Your task to perform on an android device: see tabs open on other devices in the chrome app Image 0: 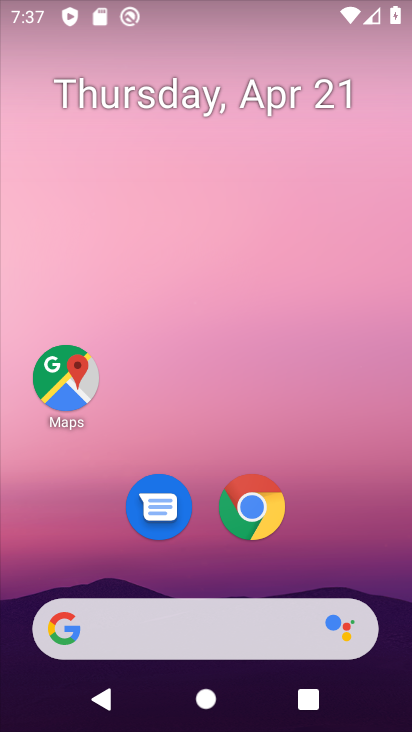
Step 0: click (331, 78)
Your task to perform on an android device: see tabs open on other devices in the chrome app Image 1: 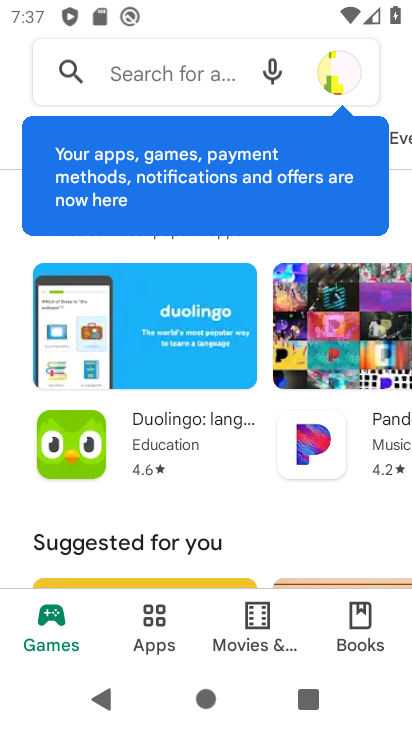
Step 1: press home button
Your task to perform on an android device: see tabs open on other devices in the chrome app Image 2: 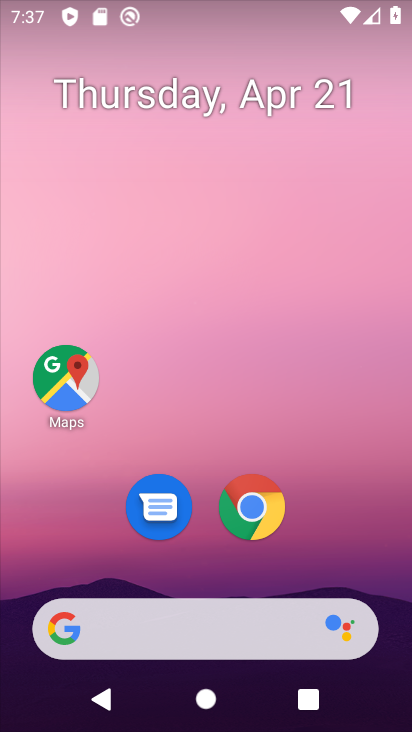
Step 2: drag from (358, 542) to (312, 69)
Your task to perform on an android device: see tabs open on other devices in the chrome app Image 3: 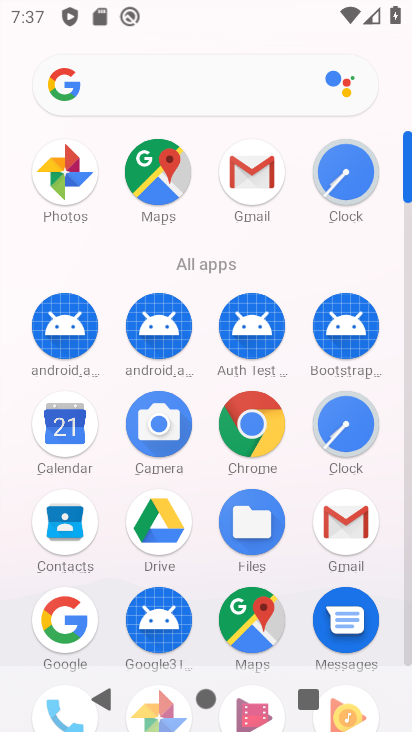
Step 3: click (257, 426)
Your task to perform on an android device: see tabs open on other devices in the chrome app Image 4: 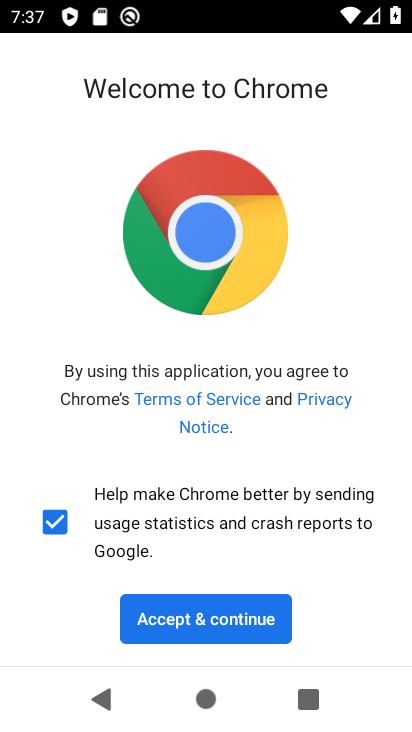
Step 4: click (210, 620)
Your task to perform on an android device: see tabs open on other devices in the chrome app Image 5: 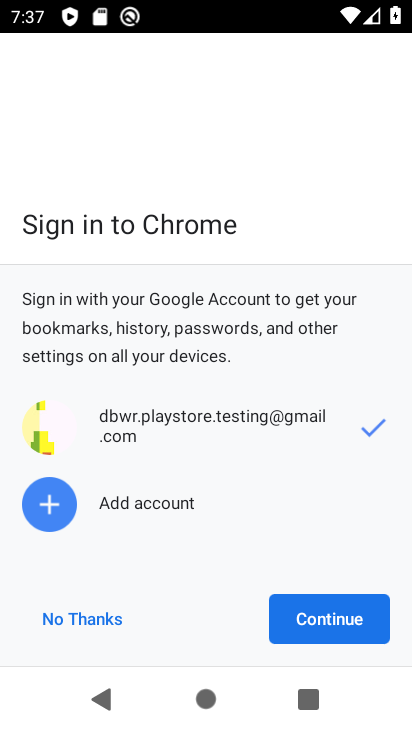
Step 5: click (350, 627)
Your task to perform on an android device: see tabs open on other devices in the chrome app Image 6: 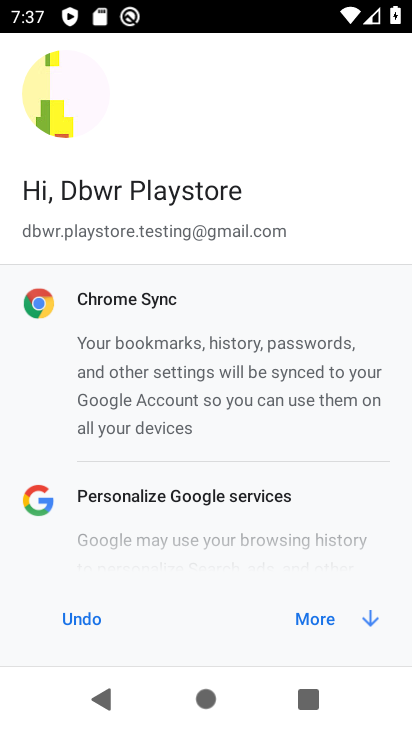
Step 6: click (349, 626)
Your task to perform on an android device: see tabs open on other devices in the chrome app Image 7: 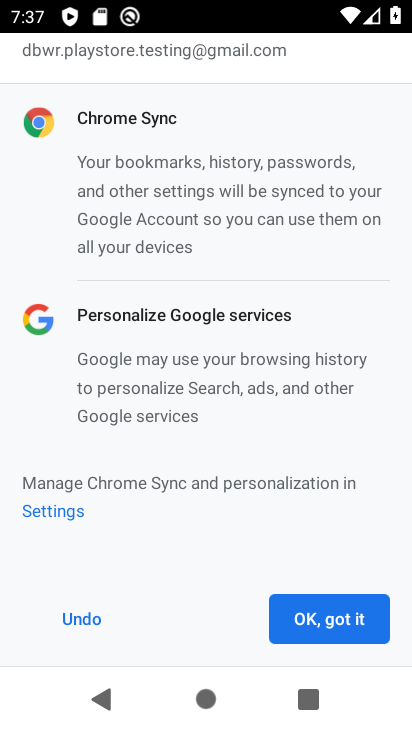
Step 7: click (349, 626)
Your task to perform on an android device: see tabs open on other devices in the chrome app Image 8: 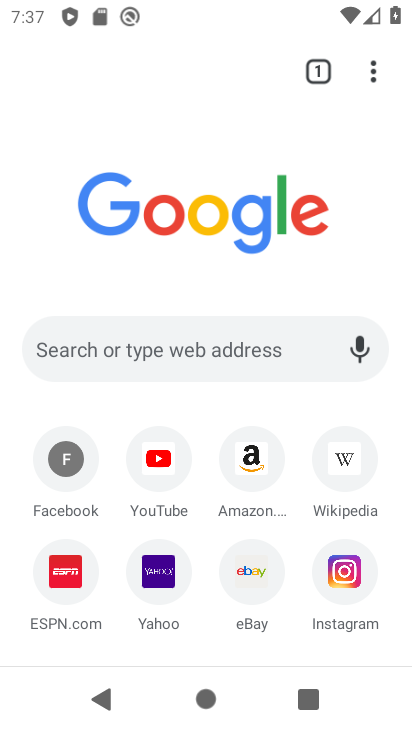
Step 8: click (377, 66)
Your task to perform on an android device: see tabs open on other devices in the chrome app Image 9: 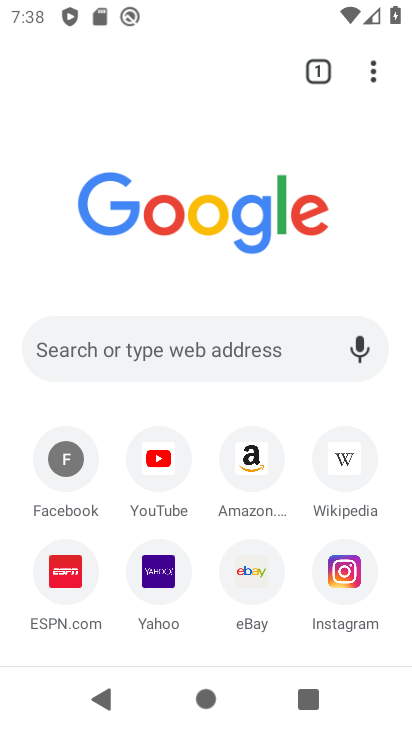
Step 9: click (379, 64)
Your task to perform on an android device: see tabs open on other devices in the chrome app Image 10: 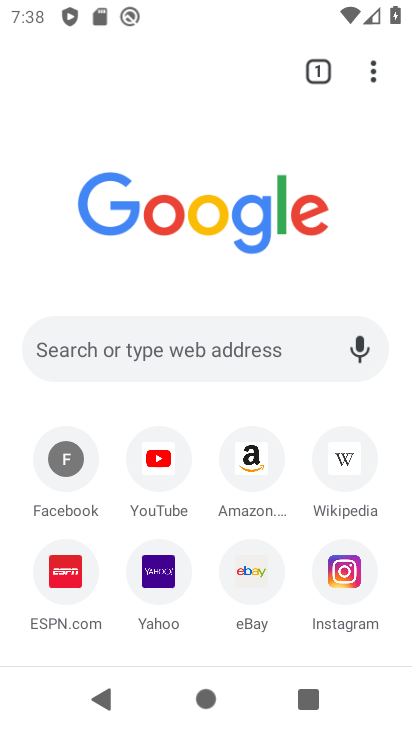
Step 10: task complete